Your task to perform on an android device: check storage Image 0: 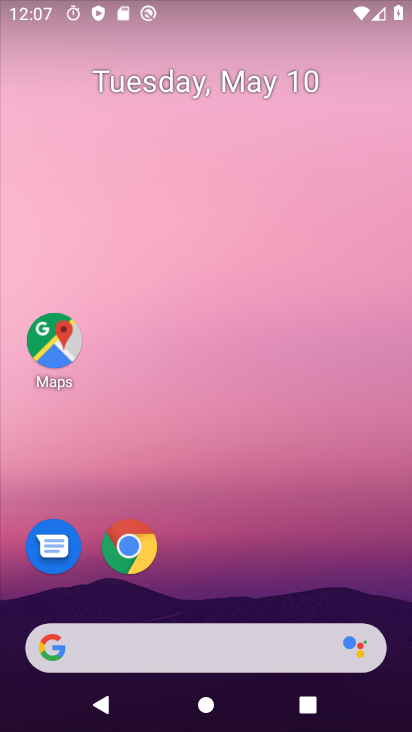
Step 0: press home button
Your task to perform on an android device: check storage Image 1: 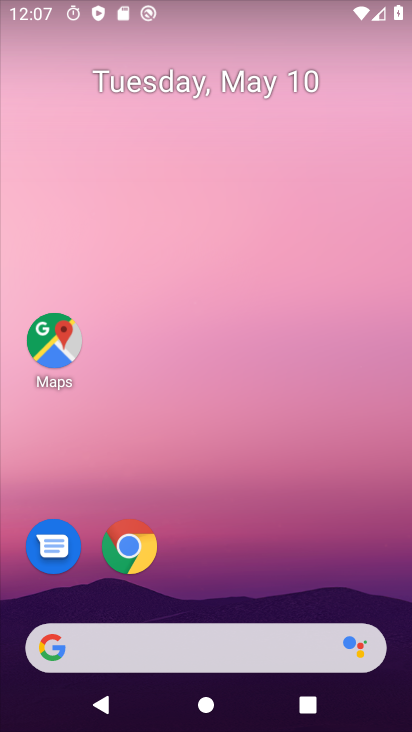
Step 1: drag from (263, 558) to (261, 34)
Your task to perform on an android device: check storage Image 2: 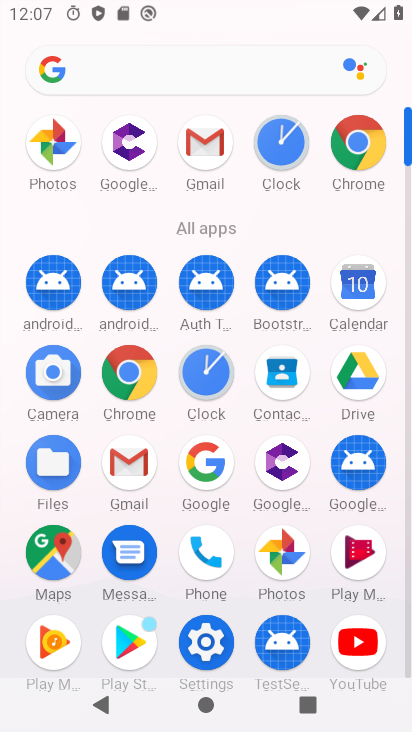
Step 2: click (217, 655)
Your task to perform on an android device: check storage Image 3: 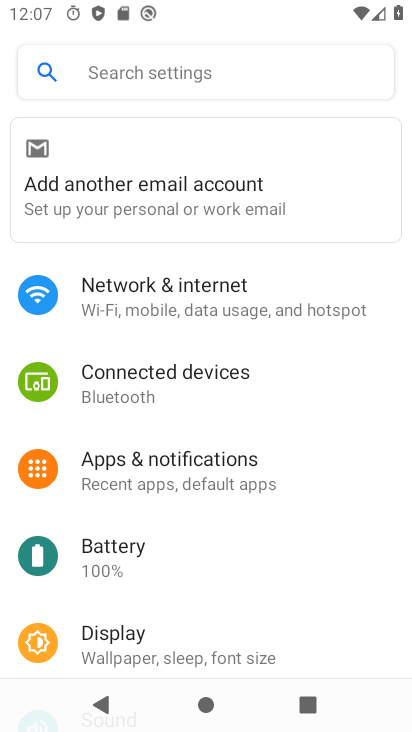
Step 3: drag from (164, 564) to (203, 383)
Your task to perform on an android device: check storage Image 4: 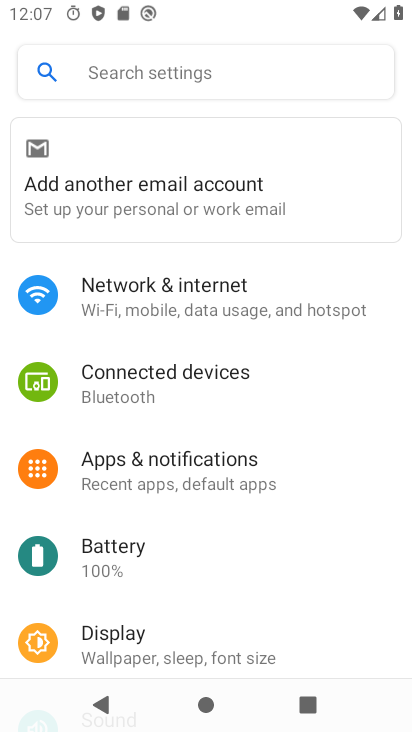
Step 4: drag from (228, 625) to (249, 239)
Your task to perform on an android device: check storage Image 5: 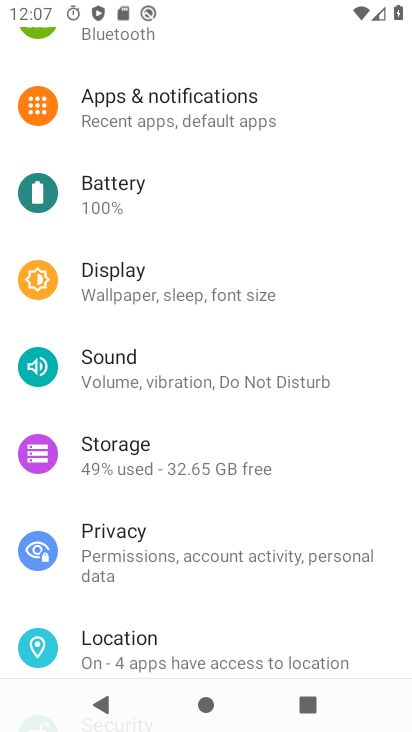
Step 5: click (175, 461)
Your task to perform on an android device: check storage Image 6: 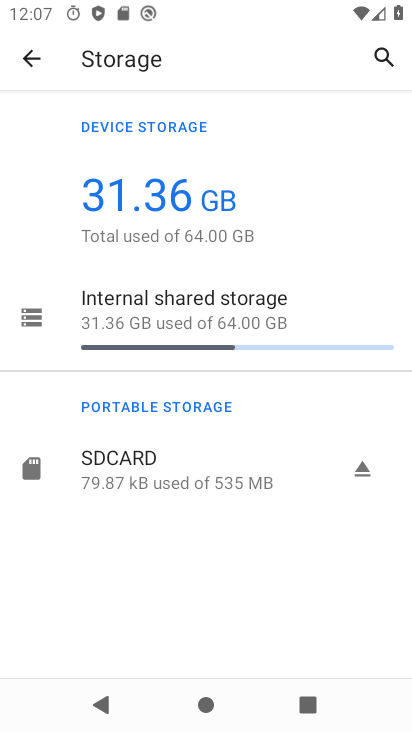
Step 6: task complete